Your task to perform on an android device: turn notification dots on Image 0: 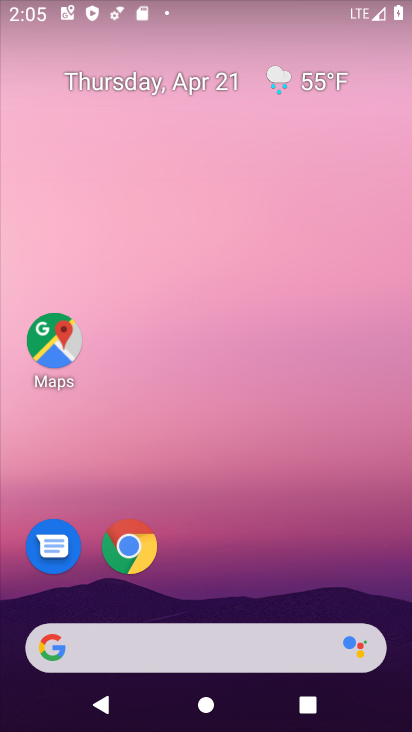
Step 0: drag from (170, 606) to (149, 361)
Your task to perform on an android device: turn notification dots on Image 1: 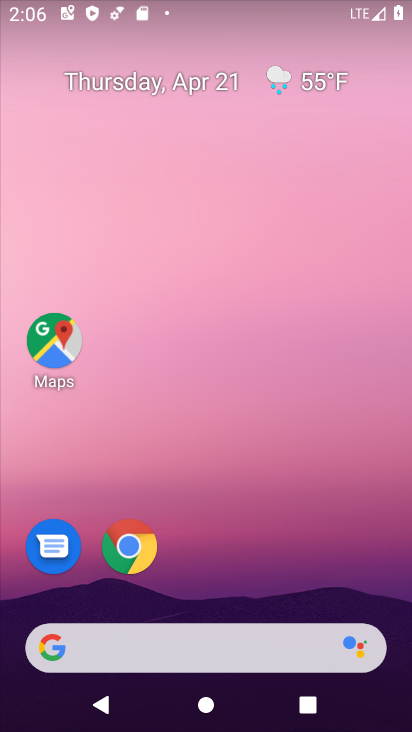
Step 1: drag from (352, 611) to (383, 254)
Your task to perform on an android device: turn notification dots on Image 2: 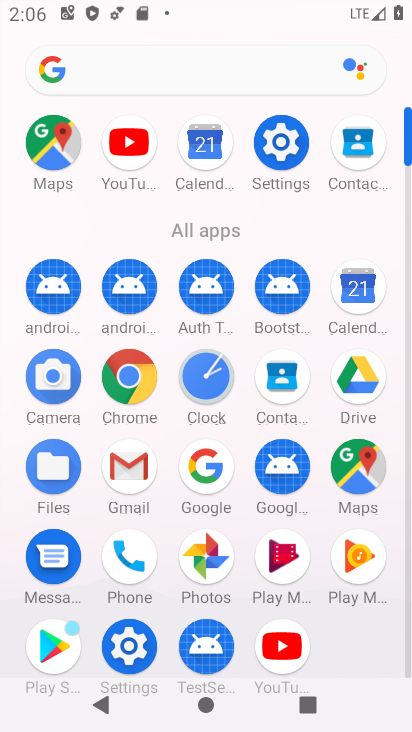
Step 2: click (138, 629)
Your task to perform on an android device: turn notification dots on Image 3: 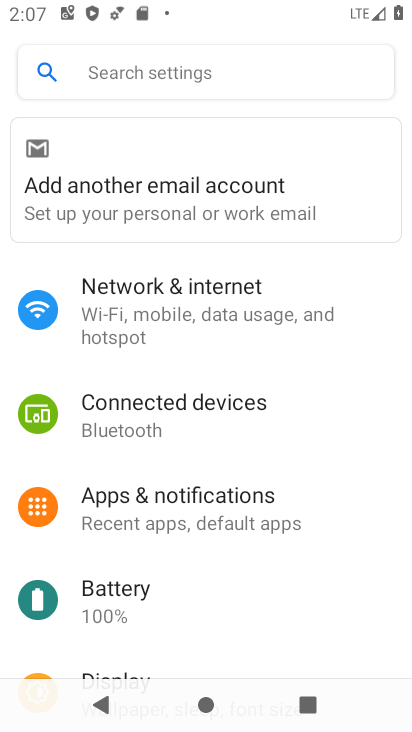
Step 3: click (209, 530)
Your task to perform on an android device: turn notification dots on Image 4: 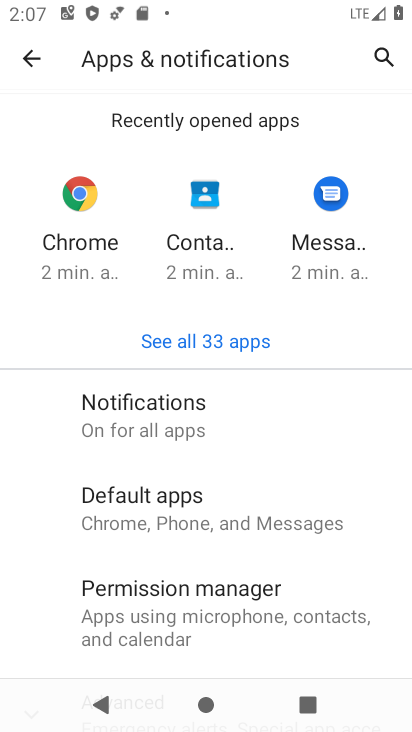
Step 4: click (130, 429)
Your task to perform on an android device: turn notification dots on Image 5: 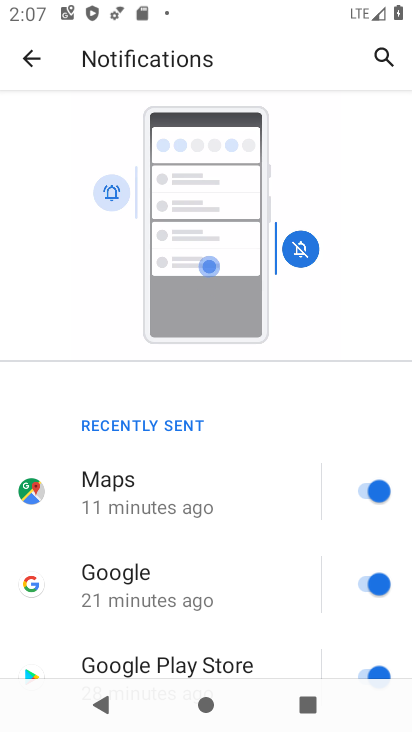
Step 5: drag from (132, 617) to (213, 190)
Your task to perform on an android device: turn notification dots on Image 6: 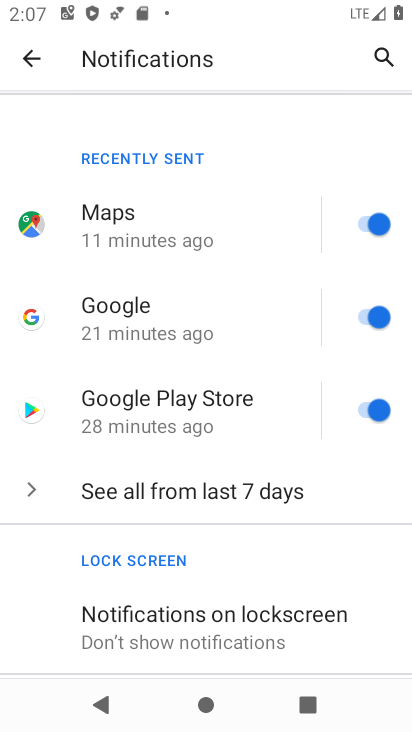
Step 6: drag from (131, 566) to (214, 150)
Your task to perform on an android device: turn notification dots on Image 7: 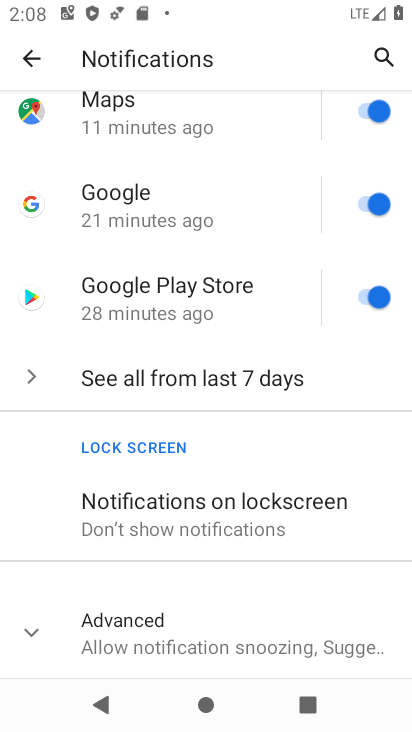
Step 7: click (142, 627)
Your task to perform on an android device: turn notification dots on Image 8: 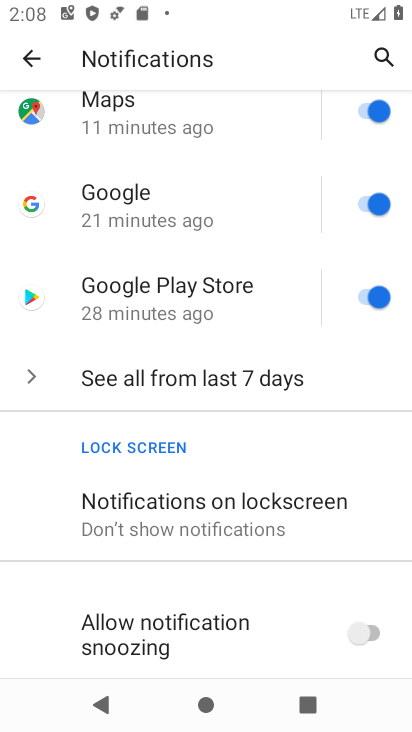
Step 8: task complete